Your task to perform on an android device: change the upload size in google photos Image 0: 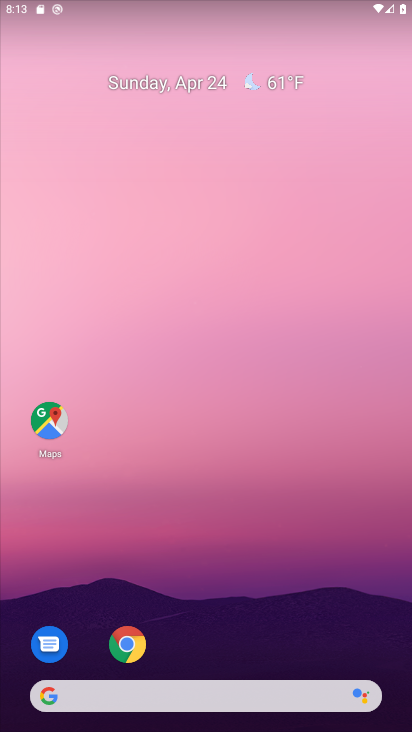
Step 0: press home button
Your task to perform on an android device: change the upload size in google photos Image 1: 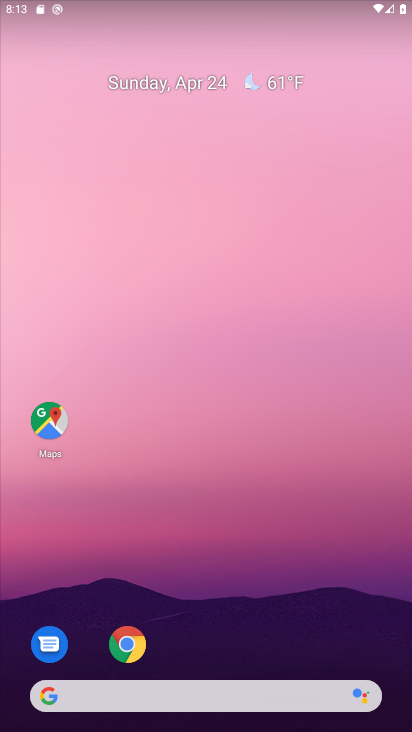
Step 1: drag from (216, 661) to (210, 49)
Your task to perform on an android device: change the upload size in google photos Image 2: 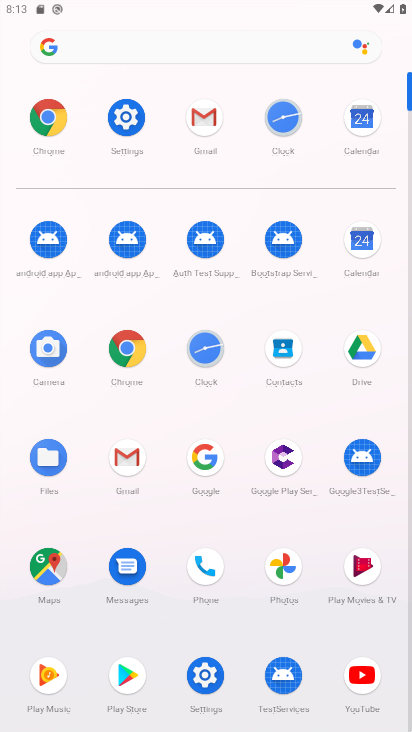
Step 2: click (281, 557)
Your task to perform on an android device: change the upload size in google photos Image 3: 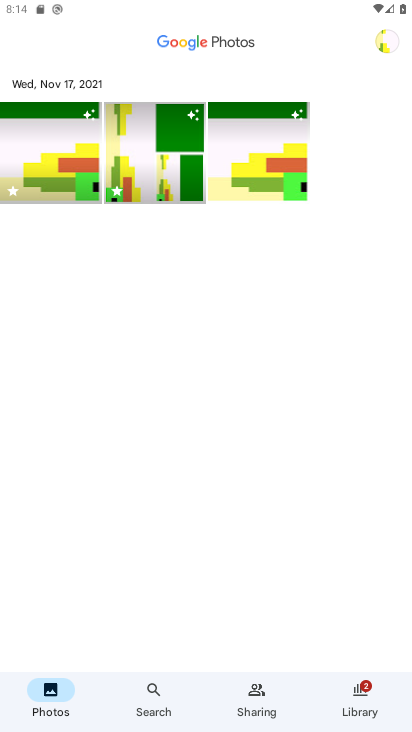
Step 3: click (389, 37)
Your task to perform on an android device: change the upload size in google photos Image 4: 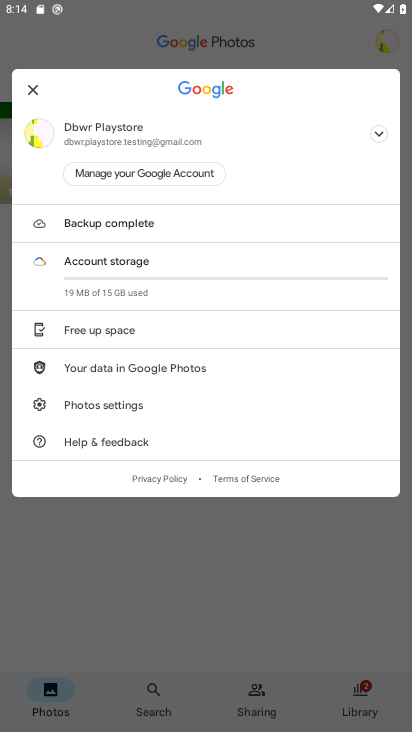
Step 4: click (157, 217)
Your task to perform on an android device: change the upload size in google photos Image 5: 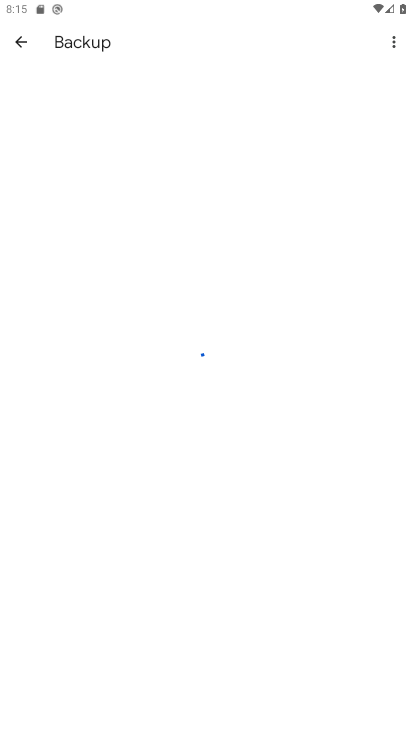
Step 5: click (391, 36)
Your task to perform on an android device: change the upload size in google photos Image 6: 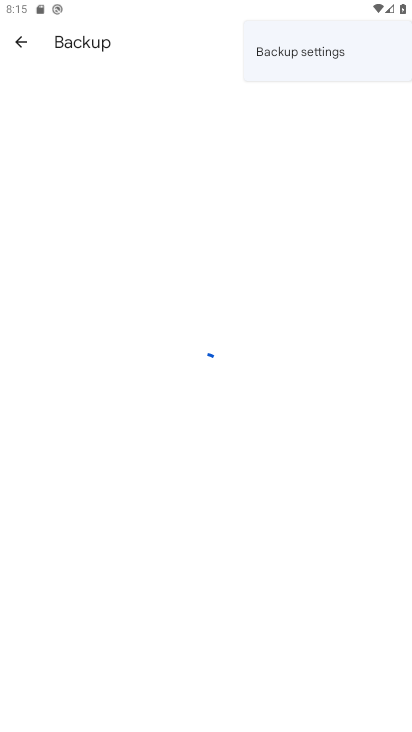
Step 6: click (289, 49)
Your task to perform on an android device: change the upload size in google photos Image 7: 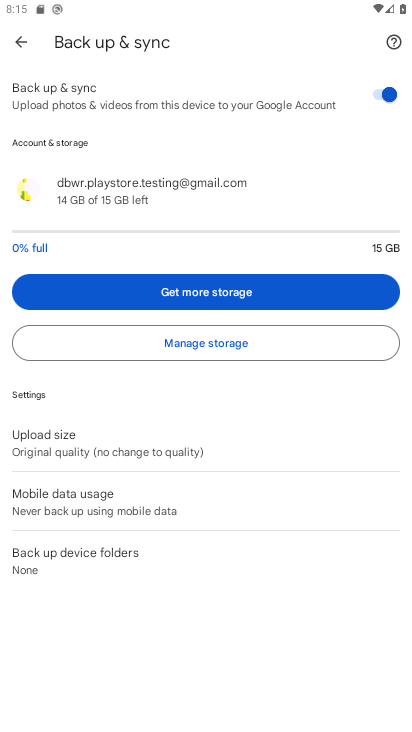
Step 7: click (111, 439)
Your task to perform on an android device: change the upload size in google photos Image 8: 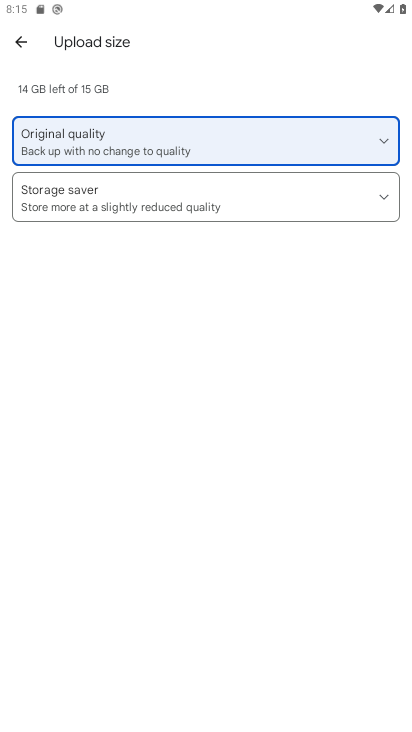
Step 8: click (124, 193)
Your task to perform on an android device: change the upload size in google photos Image 9: 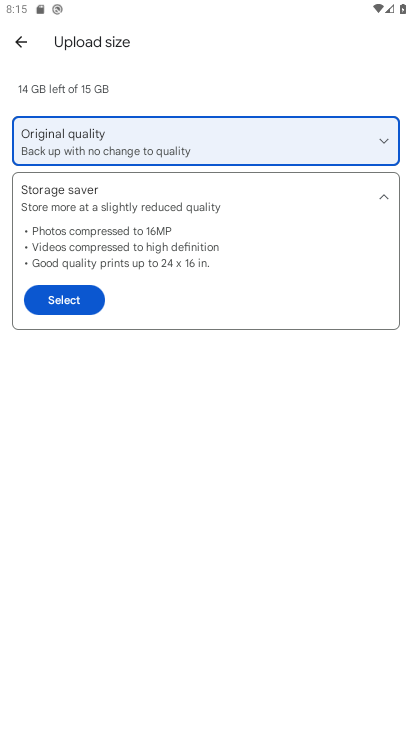
Step 9: click (50, 295)
Your task to perform on an android device: change the upload size in google photos Image 10: 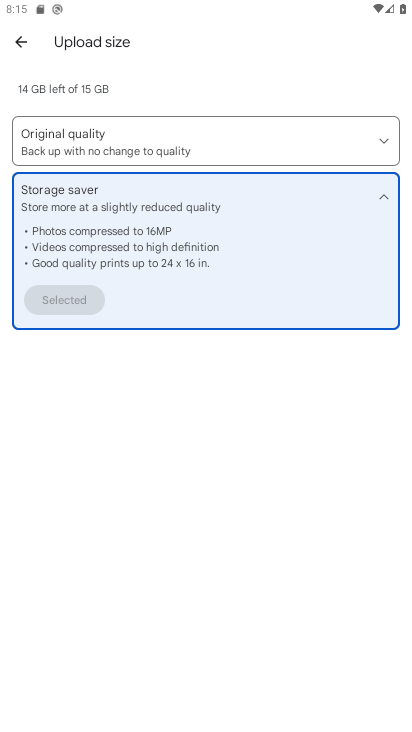
Step 10: task complete